Your task to perform on an android device: turn on airplane mode Image 0: 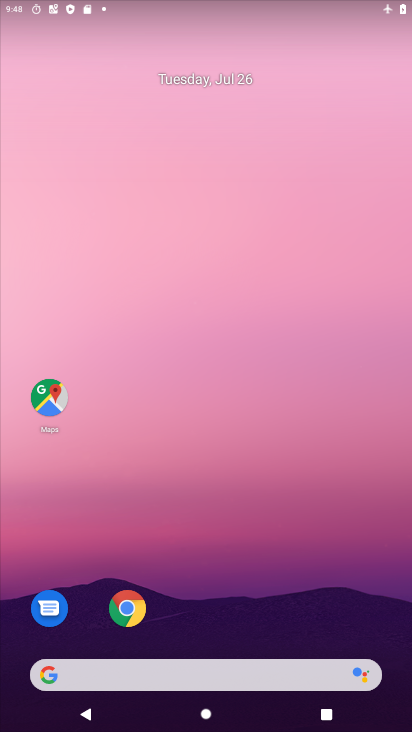
Step 0: drag from (218, 319) to (222, 62)
Your task to perform on an android device: turn on airplane mode Image 1: 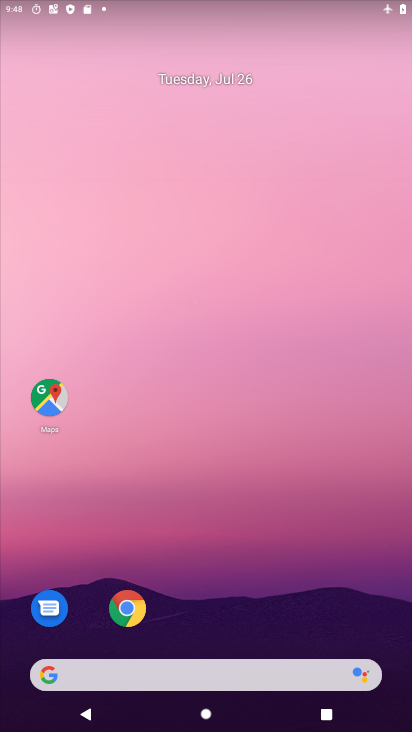
Step 1: drag from (213, 612) to (246, 102)
Your task to perform on an android device: turn on airplane mode Image 2: 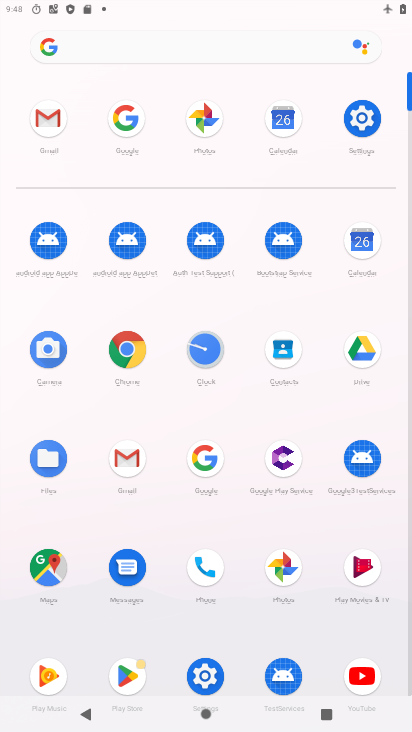
Step 2: click (342, 114)
Your task to perform on an android device: turn on airplane mode Image 3: 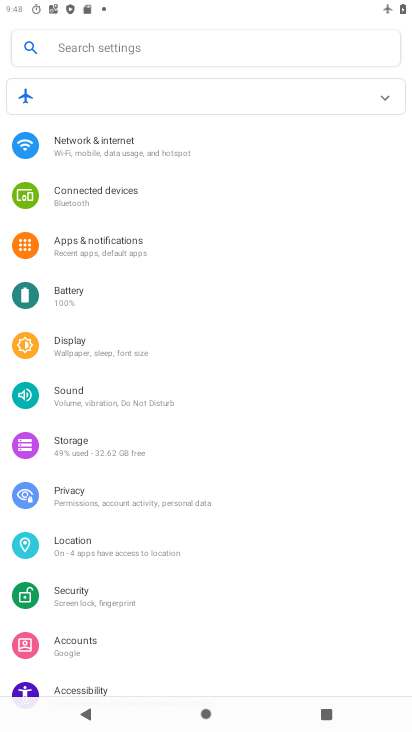
Step 3: click (138, 147)
Your task to perform on an android device: turn on airplane mode Image 4: 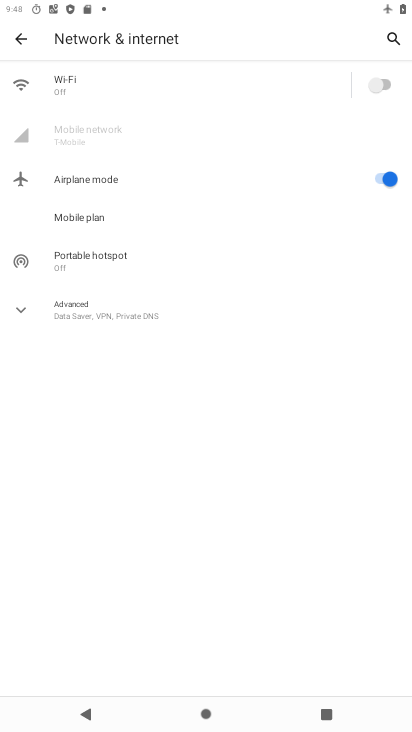
Step 4: task complete